Your task to perform on an android device: Open network settings Image 0: 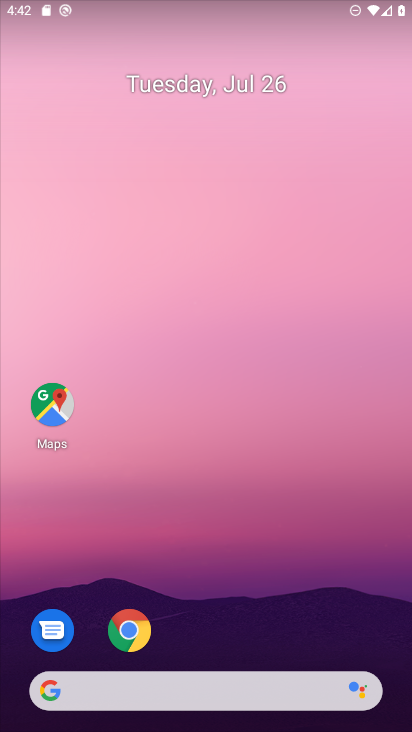
Step 0: drag from (255, 610) to (234, 247)
Your task to perform on an android device: Open network settings Image 1: 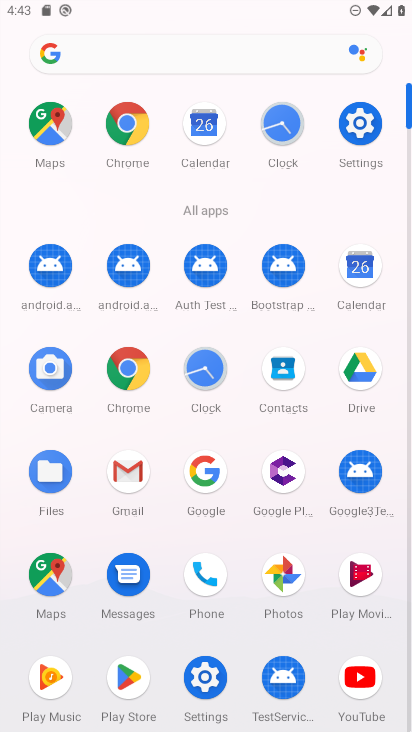
Step 1: click (367, 124)
Your task to perform on an android device: Open network settings Image 2: 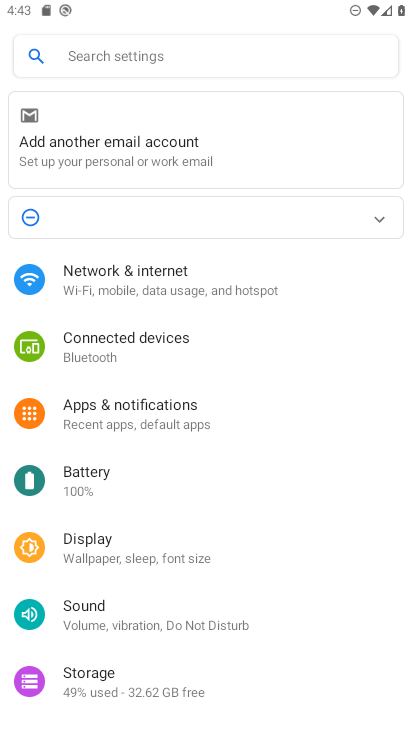
Step 2: click (166, 280)
Your task to perform on an android device: Open network settings Image 3: 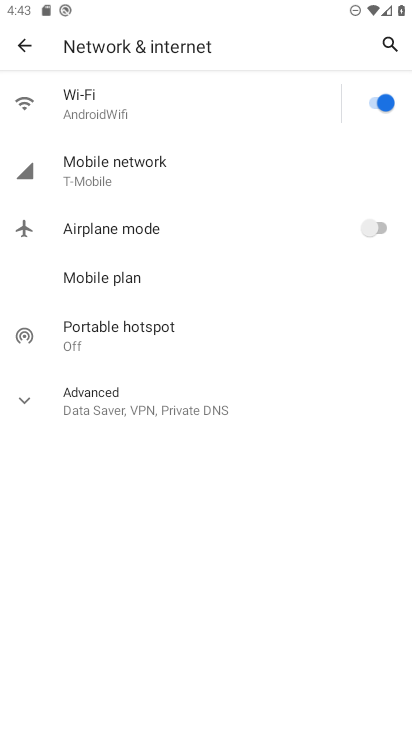
Step 3: task complete